Your task to perform on an android device: Open Android settings Image 0: 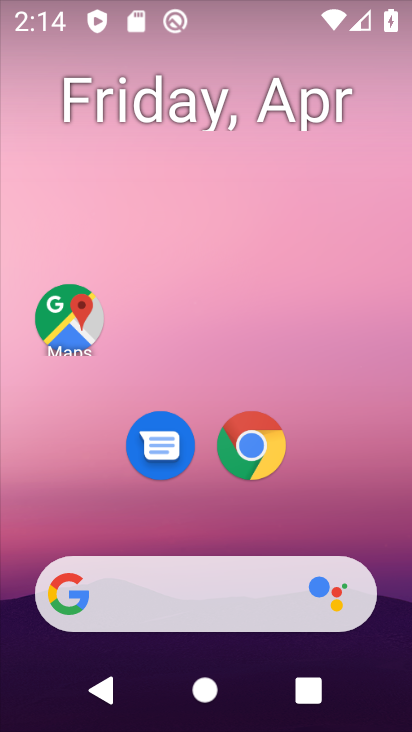
Step 0: drag from (191, 371) to (275, 0)
Your task to perform on an android device: Open Android settings Image 1: 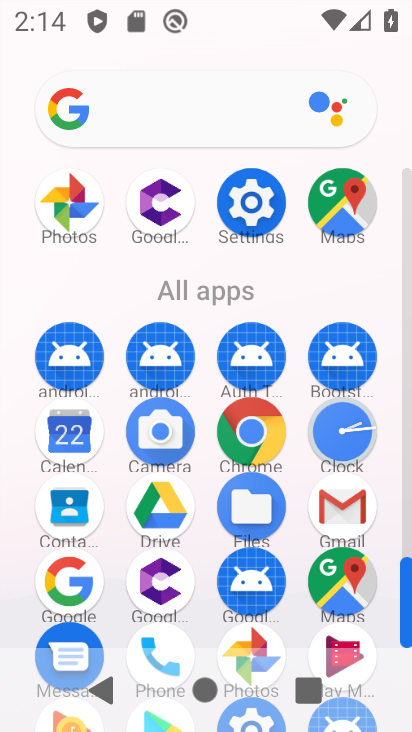
Step 1: click (251, 200)
Your task to perform on an android device: Open Android settings Image 2: 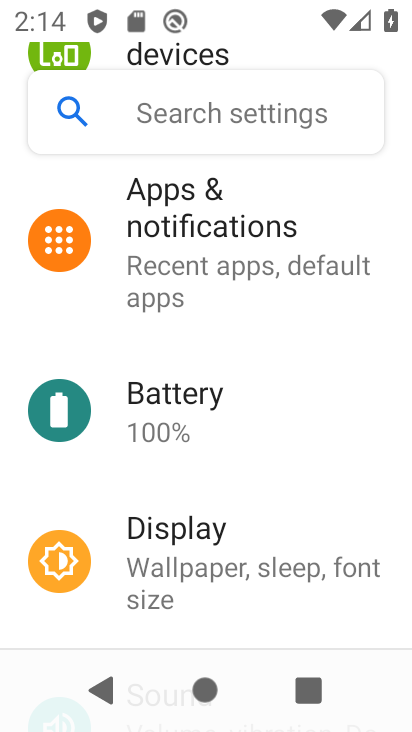
Step 2: task complete